Your task to perform on an android device: Go to battery settings Image 0: 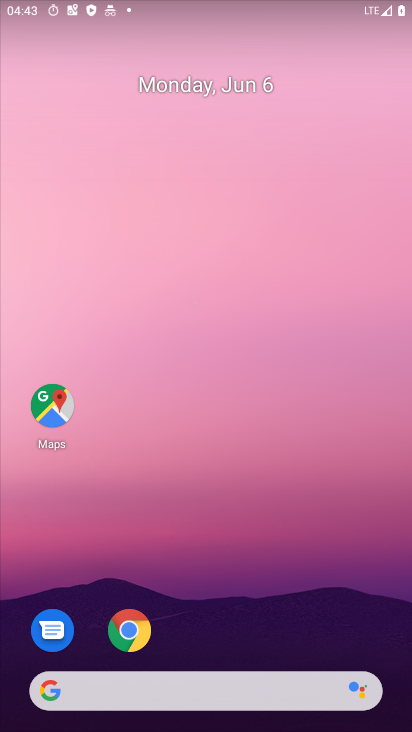
Step 0: drag from (277, 625) to (289, 144)
Your task to perform on an android device: Go to battery settings Image 1: 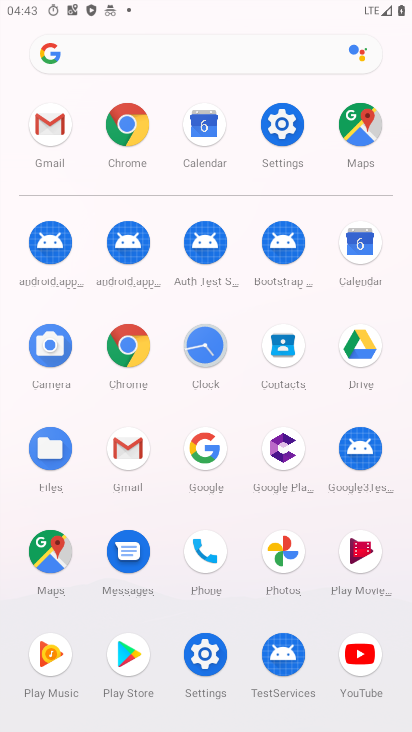
Step 1: click (199, 658)
Your task to perform on an android device: Go to battery settings Image 2: 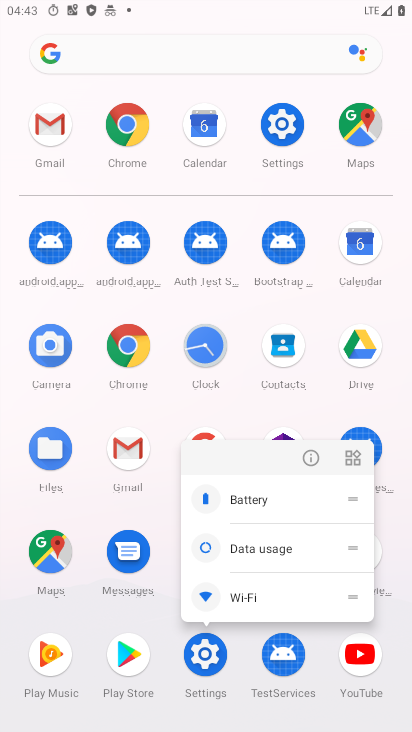
Step 2: click (201, 662)
Your task to perform on an android device: Go to battery settings Image 3: 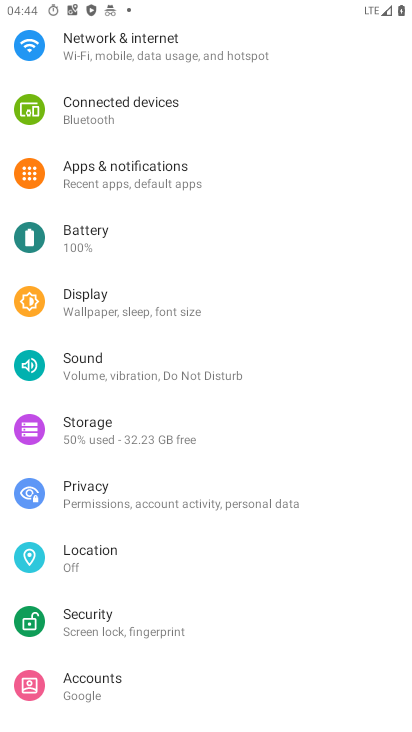
Step 3: click (73, 229)
Your task to perform on an android device: Go to battery settings Image 4: 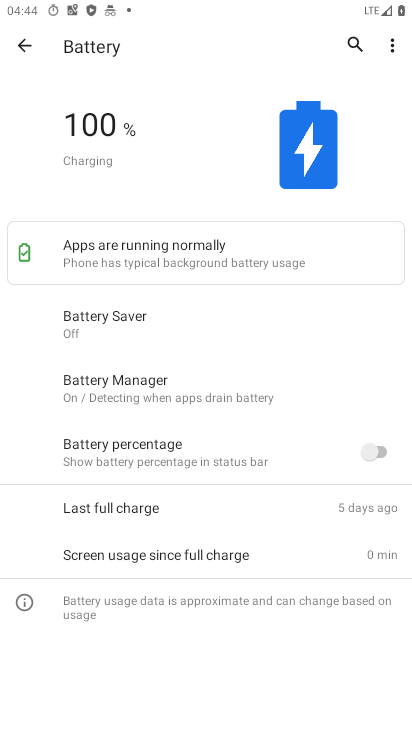
Step 4: task complete